Your task to perform on an android device: Open location settings Image 0: 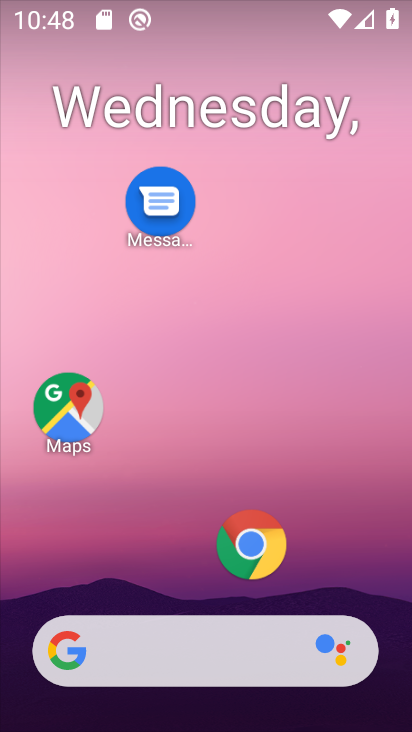
Step 0: drag from (191, 593) to (216, 108)
Your task to perform on an android device: Open location settings Image 1: 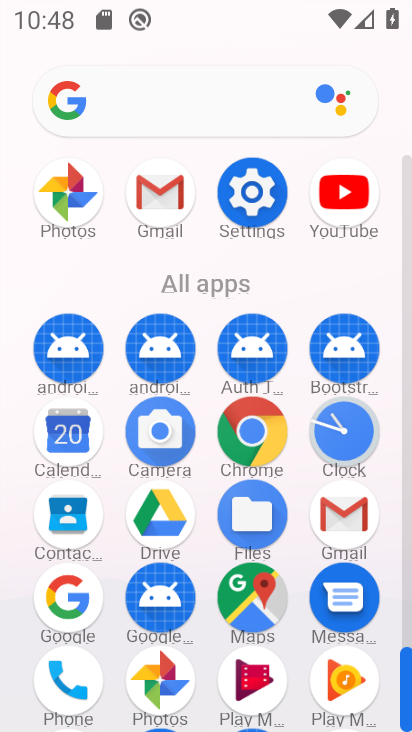
Step 1: click (247, 168)
Your task to perform on an android device: Open location settings Image 2: 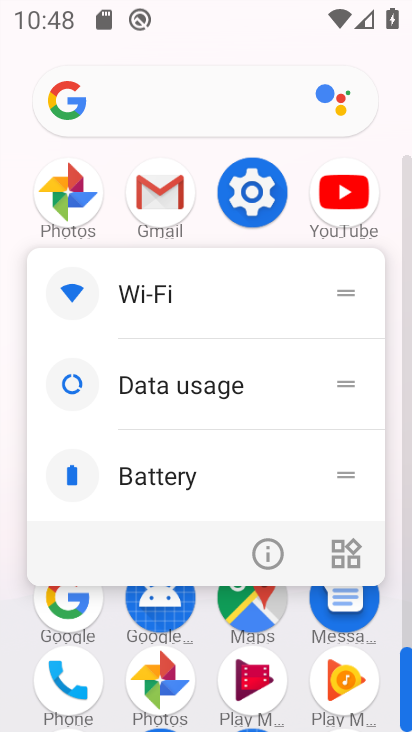
Step 2: click (247, 176)
Your task to perform on an android device: Open location settings Image 3: 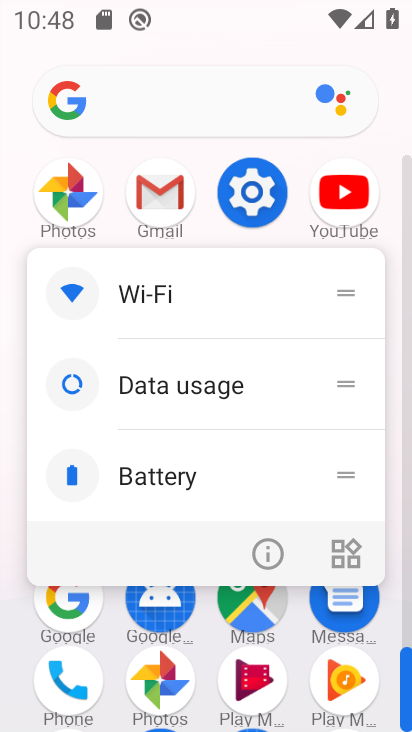
Step 3: click (249, 186)
Your task to perform on an android device: Open location settings Image 4: 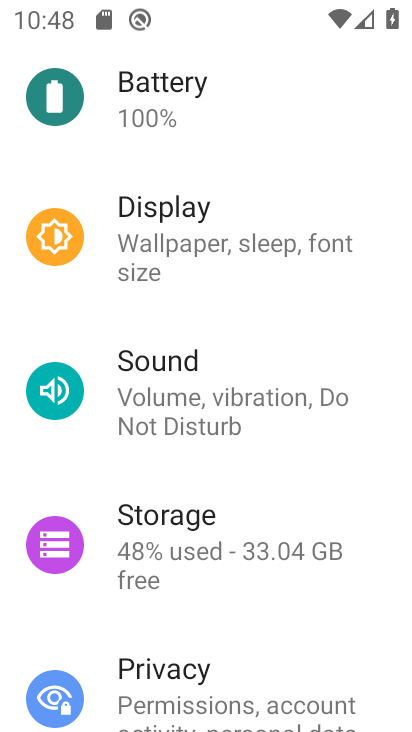
Step 4: drag from (247, 598) to (281, 228)
Your task to perform on an android device: Open location settings Image 5: 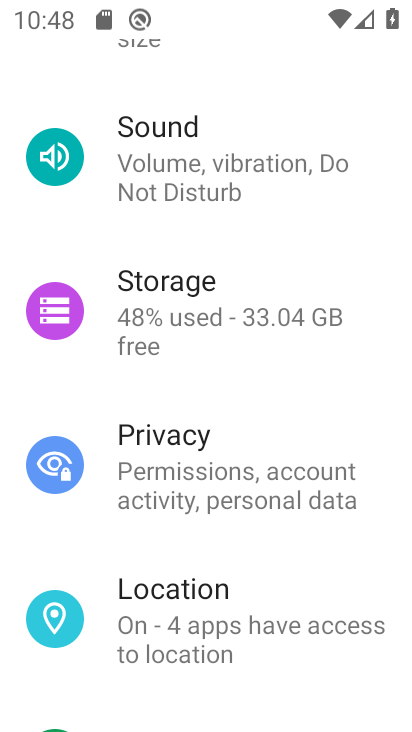
Step 5: click (235, 628)
Your task to perform on an android device: Open location settings Image 6: 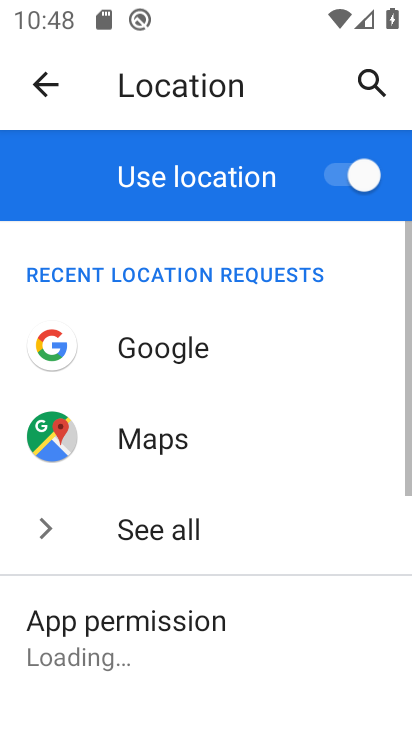
Step 6: drag from (249, 556) to (256, 305)
Your task to perform on an android device: Open location settings Image 7: 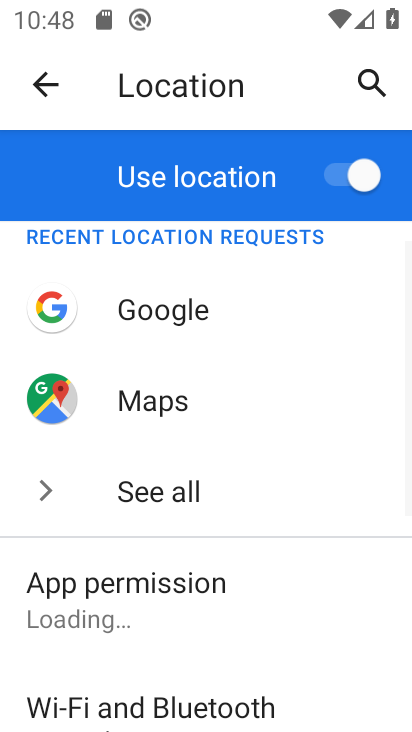
Step 7: drag from (240, 621) to (269, 326)
Your task to perform on an android device: Open location settings Image 8: 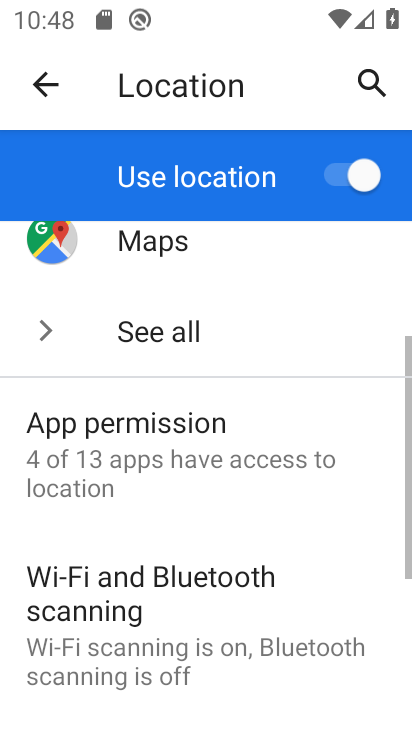
Step 8: drag from (270, 596) to (275, 354)
Your task to perform on an android device: Open location settings Image 9: 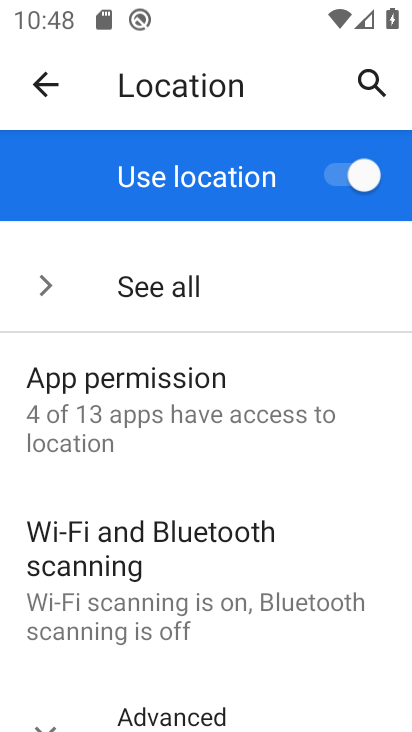
Step 9: drag from (265, 627) to (278, 319)
Your task to perform on an android device: Open location settings Image 10: 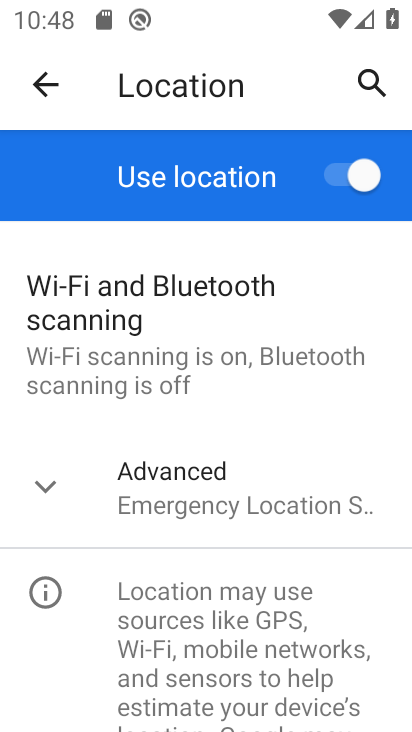
Step 10: click (202, 494)
Your task to perform on an android device: Open location settings Image 11: 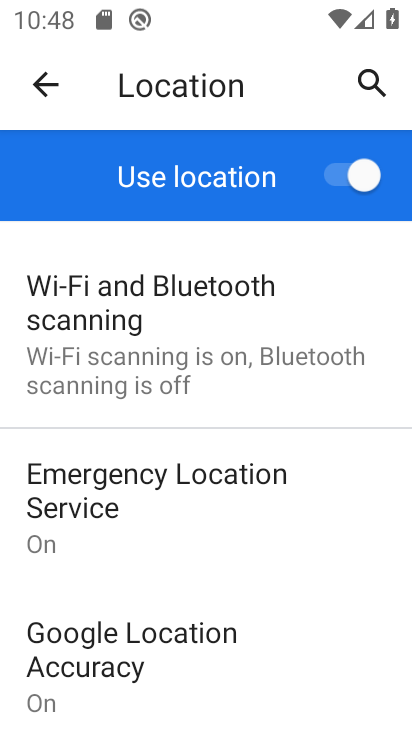
Step 11: task complete